Your task to perform on an android device: Go to notification settings Image 0: 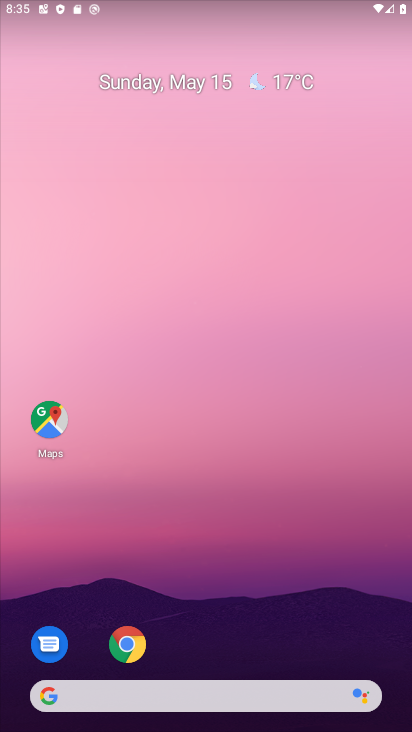
Step 0: drag from (268, 694) to (169, 169)
Your task to perform on an android device: Go to notification settings Image 1: 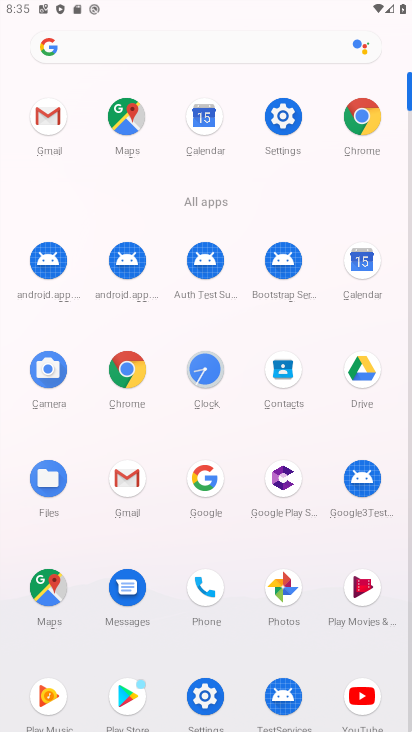
Step 1: click (276, 130)
Your task to perform on an android device: Go to notification settings Image 2: 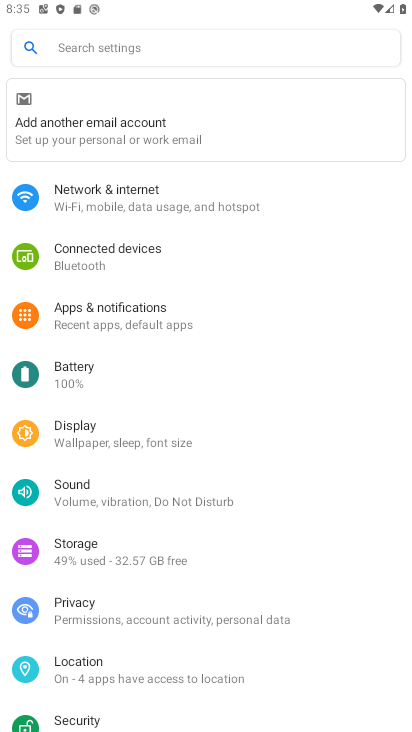
Step 2: click (149, 43)
Your task to perform on an android device: Go to notification settings Image 3: 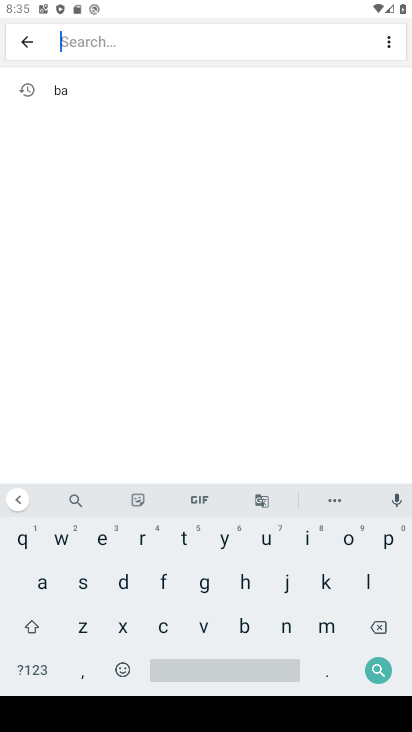
Step 3: click (283, 620)
Your task to perform on an android device: Go to notification settings Image 4: 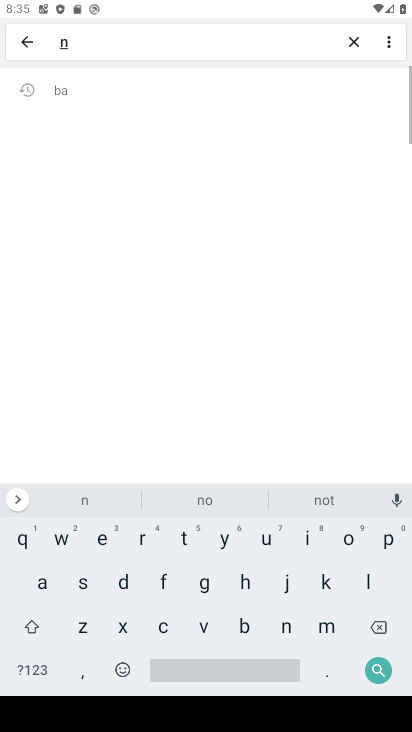
Step 4: click (344, 540)
Your task to perform on an android device: Go to notification settings Image 5: 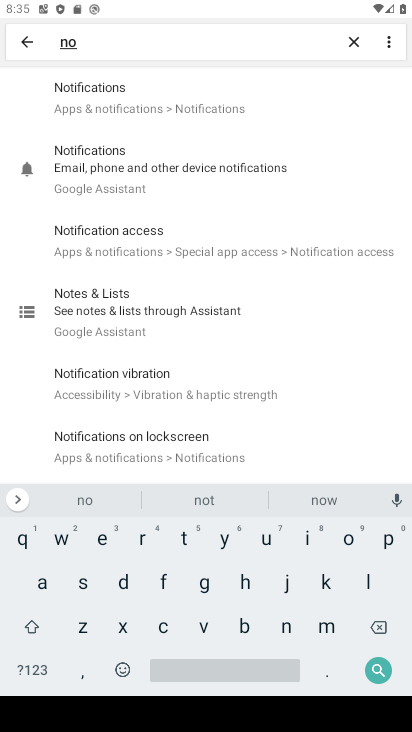
Step 5: click (133, 86)
Your task to perform on an android device: Go to notification settings Image 6: 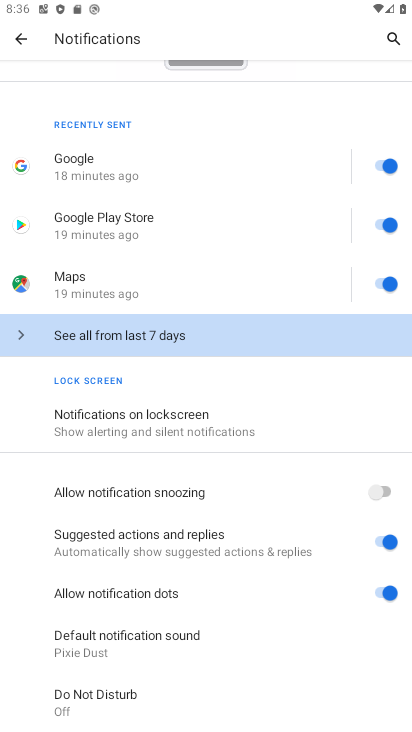
Step 6: task complete